Your task to perform on an android device: Open settings on Google Maps Image 0: 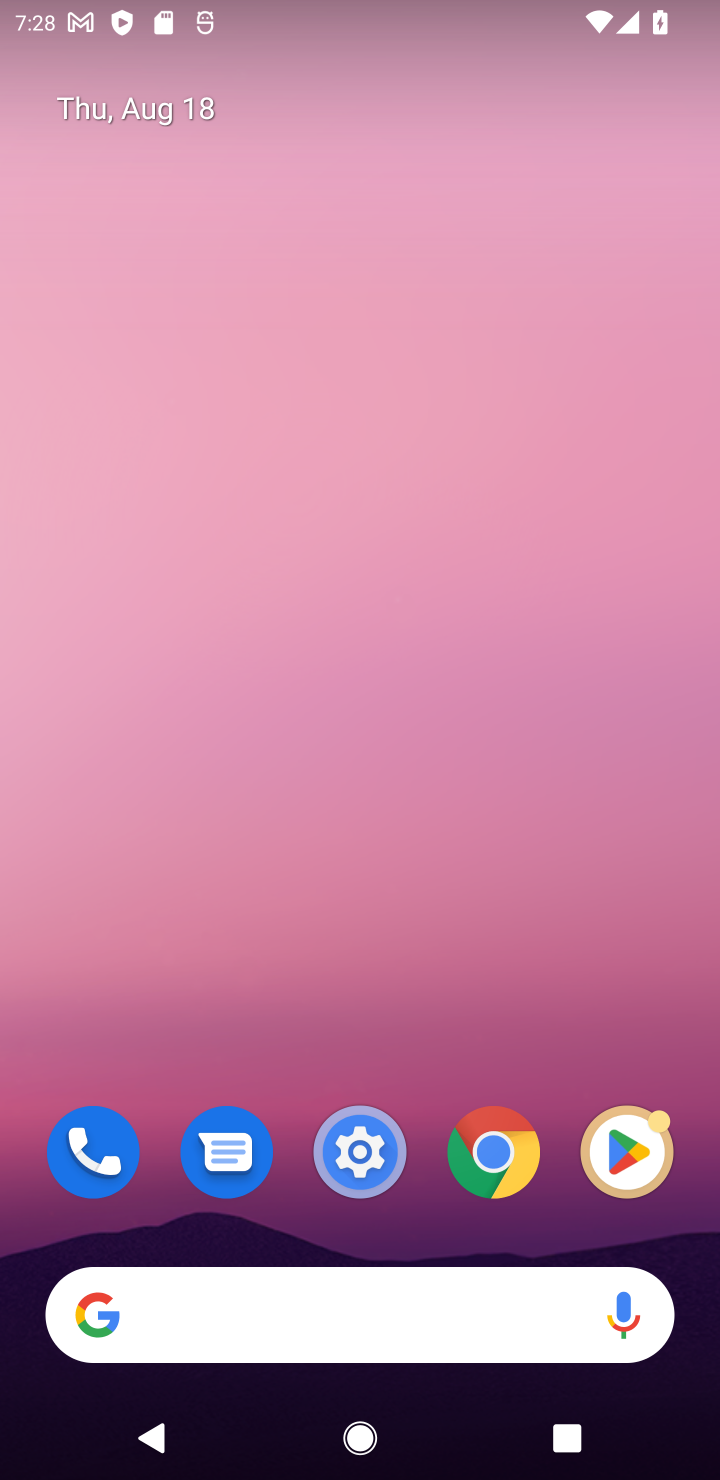
Step 0: drag from (440, 1223) to (571, 233)
Your task to perform on an android device: Open settings on Google Maps Image 1: 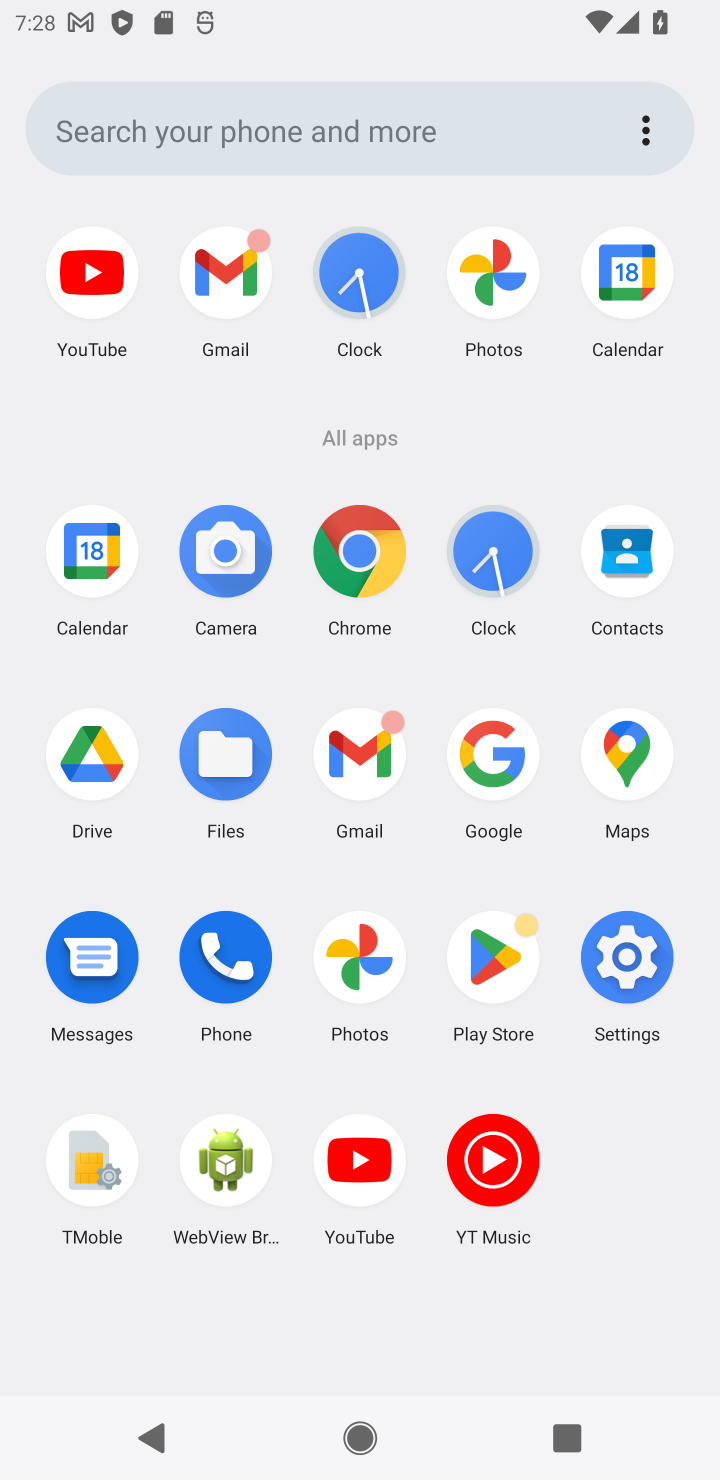
Step 1: click (635, 754)
Your task to perform on an android device: Open settings on Google Maps Image 2: 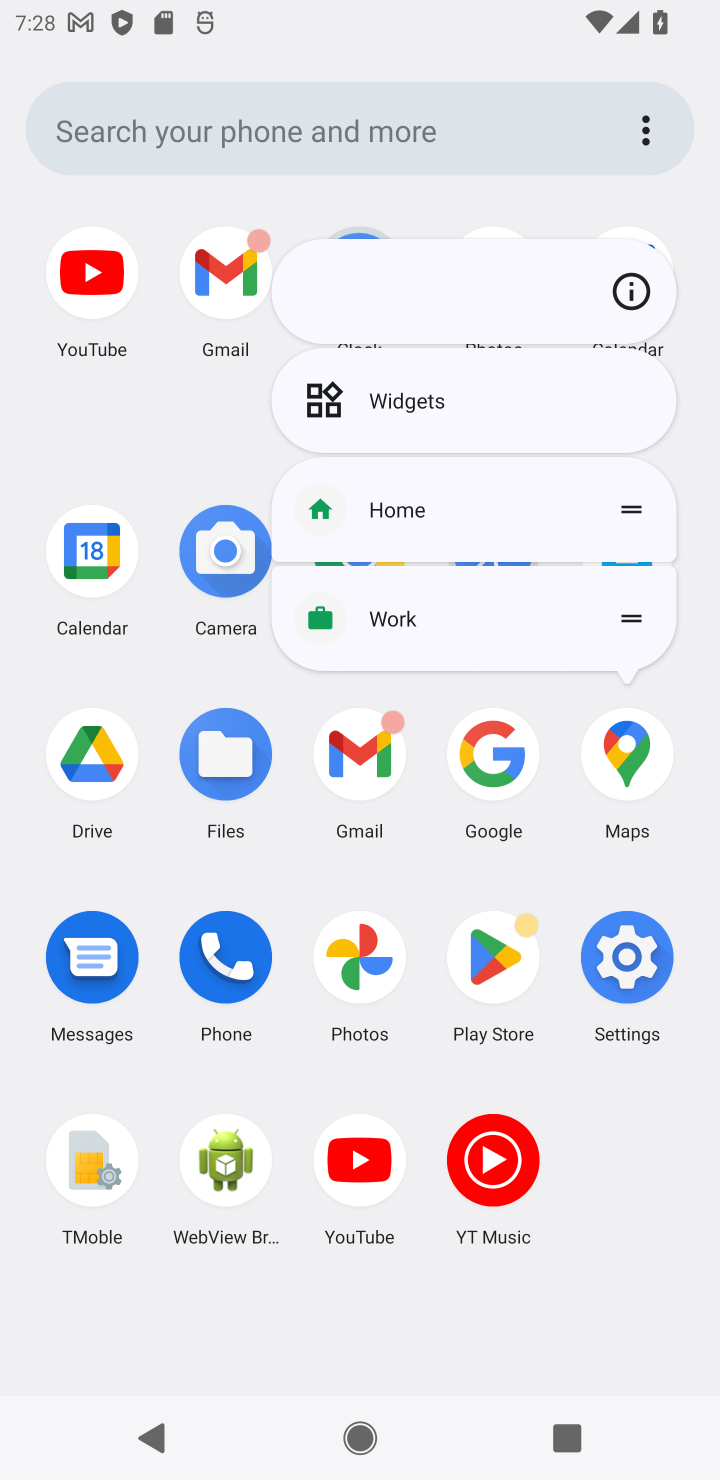
Step 2: click (636, 773)
Your task to perform on an android device: Open settings on Google Maps Image 3: 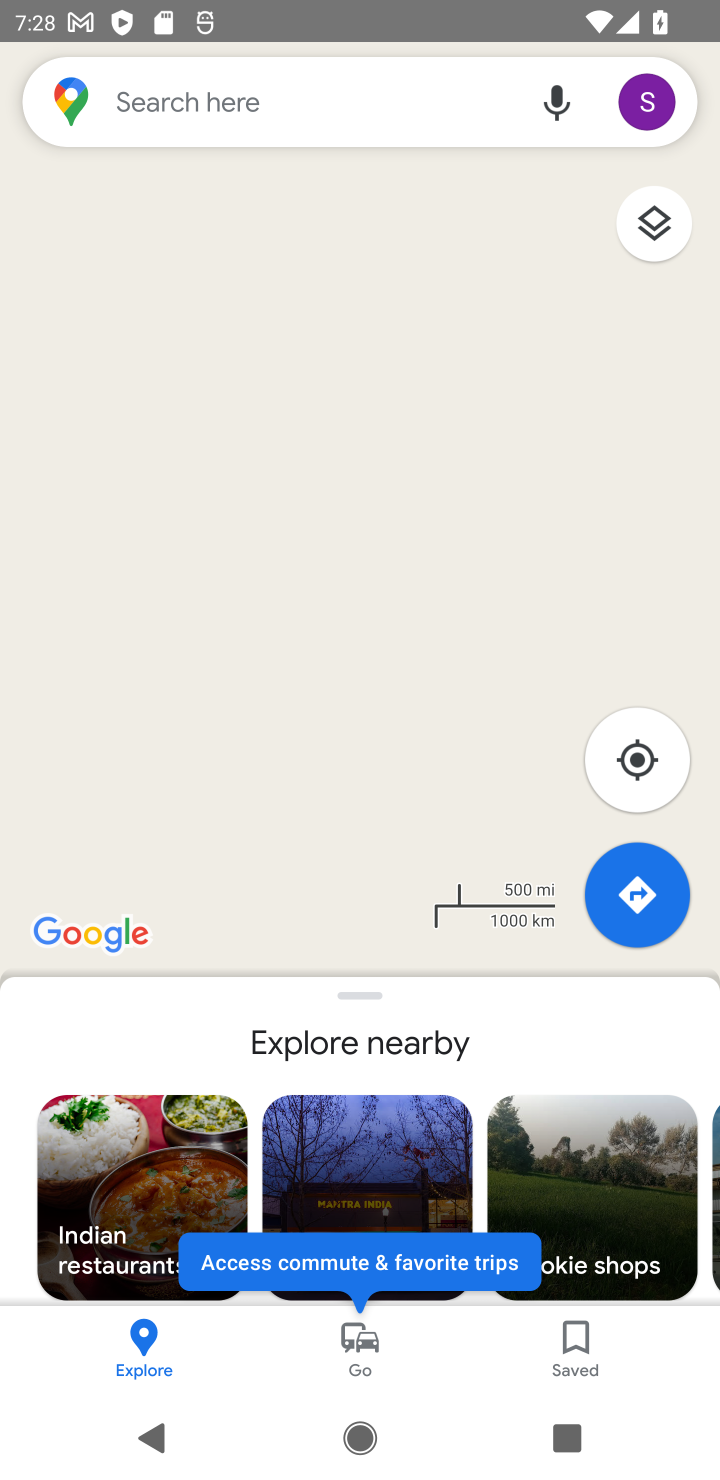
Step 3: click (644, 110)
Your task to perform on an android device: Open settings on Google Maps Image 4: 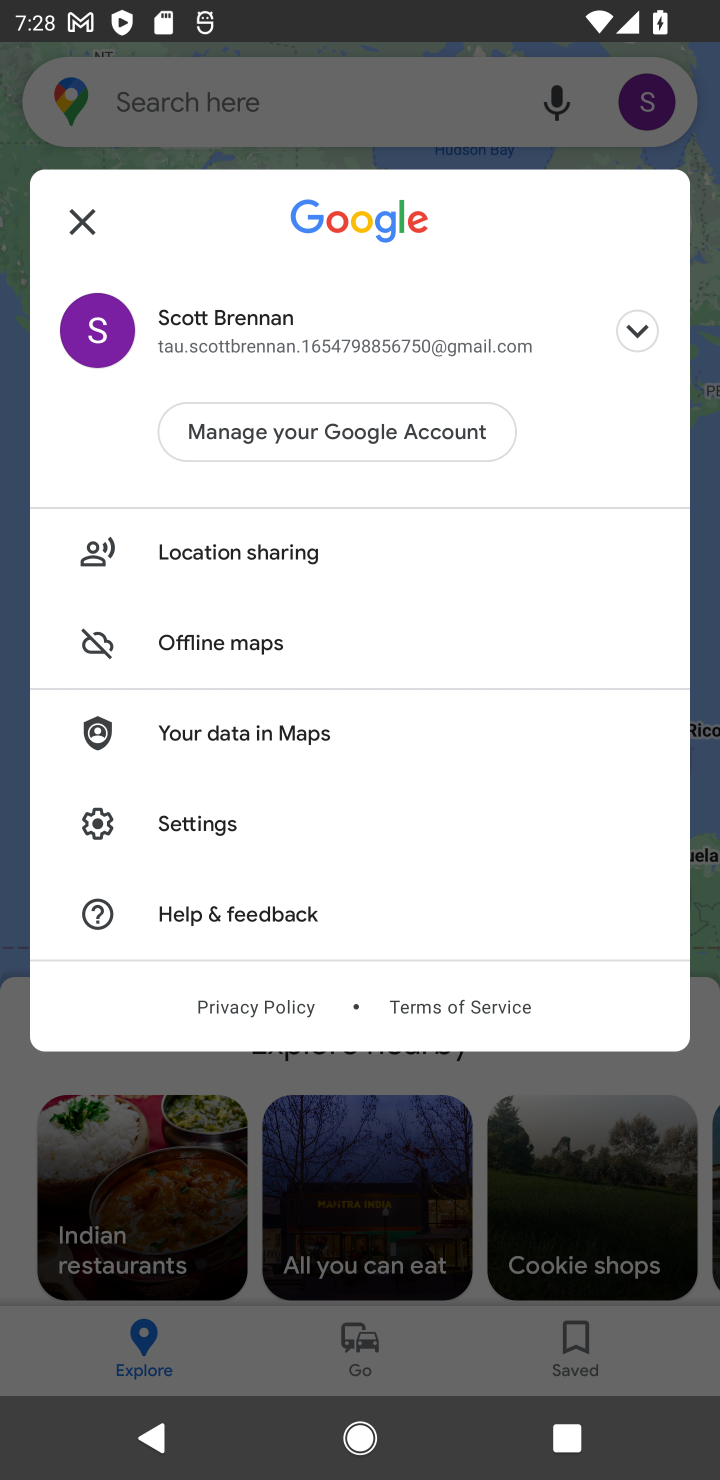
Step 4: click (176, 841)
Your task to perform on an android device: Open settings on Google Maps Image 5: 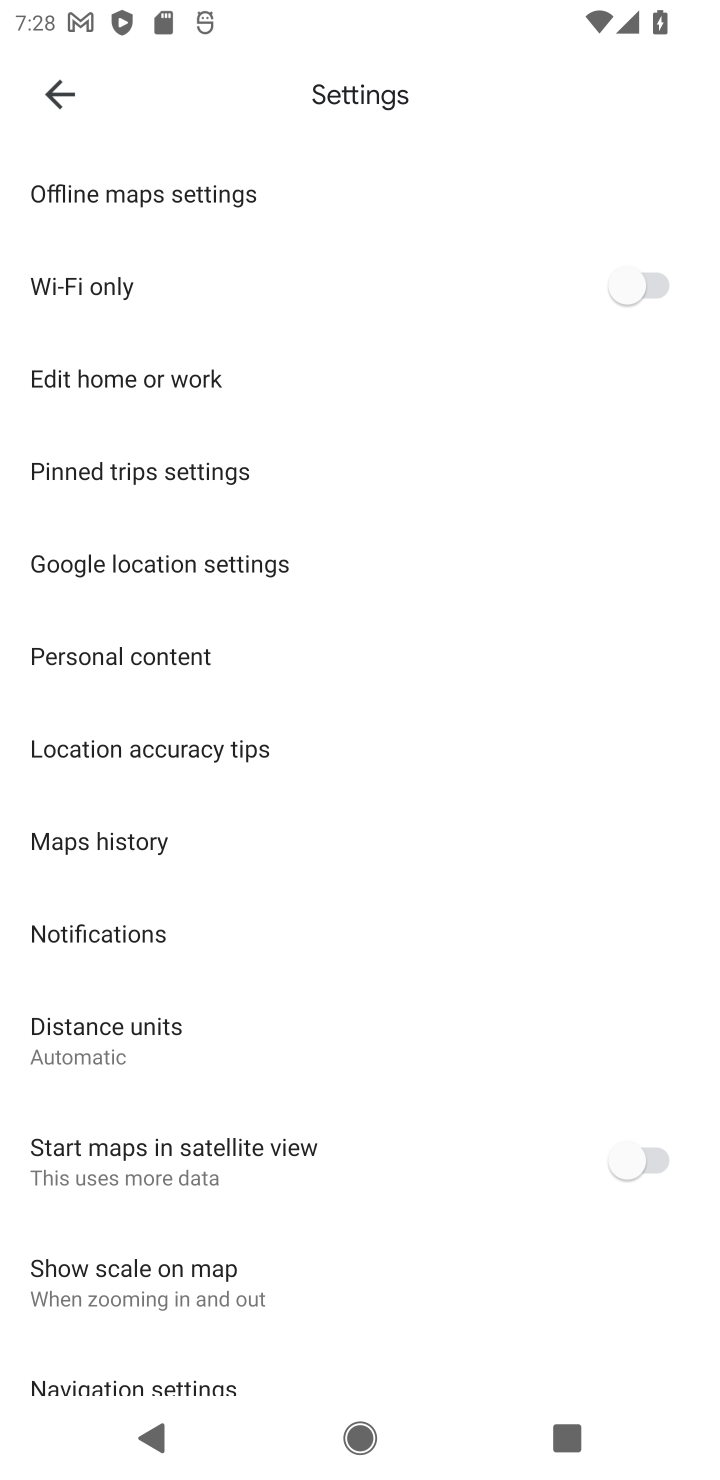
Step 5: task complete